Your task to perform on an android device: set the stopwatch Image 0: 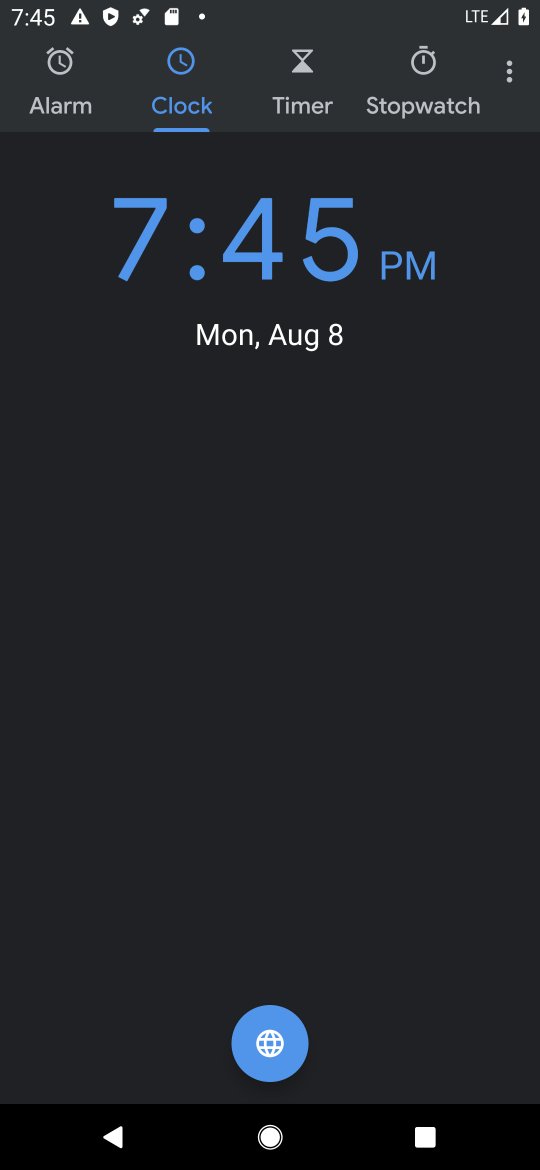
Step 0: drag from (250, 983) to (369, 473)
Your task to perform on an android device: set the stopwatch Image 1: 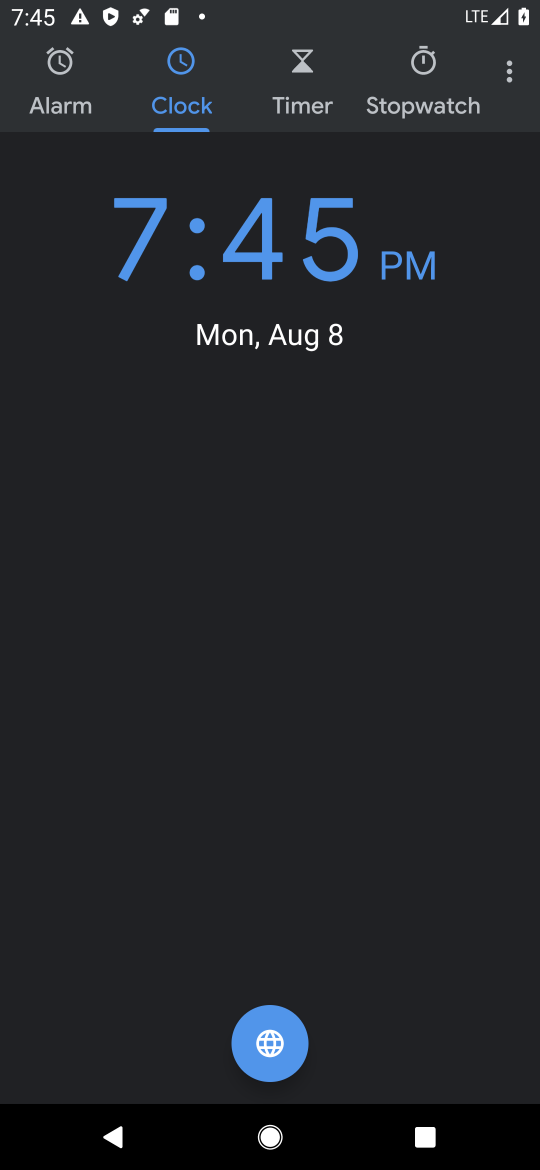
Step 1: click (428, 93)
Your task to perform on an android device: set the stopwatch Image 2: 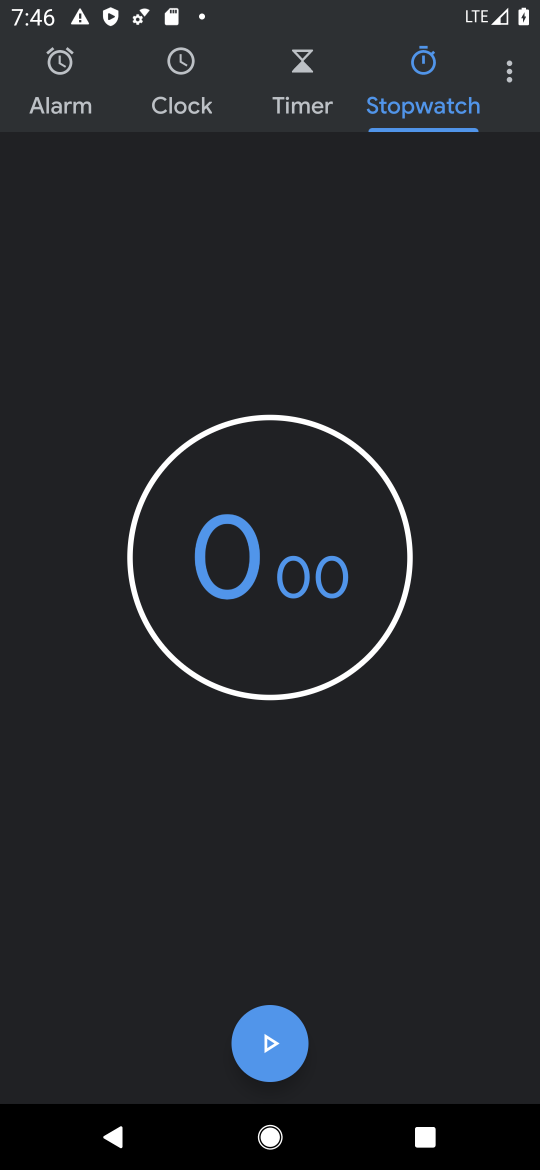
Step 2: click (424, 413)
Your task to perform on an android device: set the stopwatch Image 3: 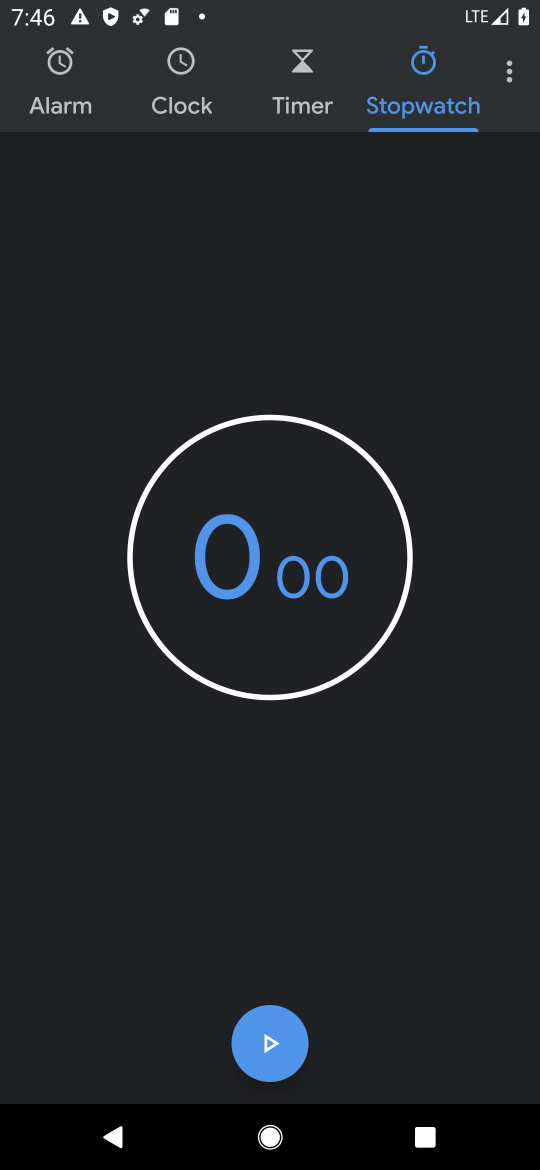
Step 3: click (252, 1074)
Your task to perform on an android device: set the stopwatch Image 4: 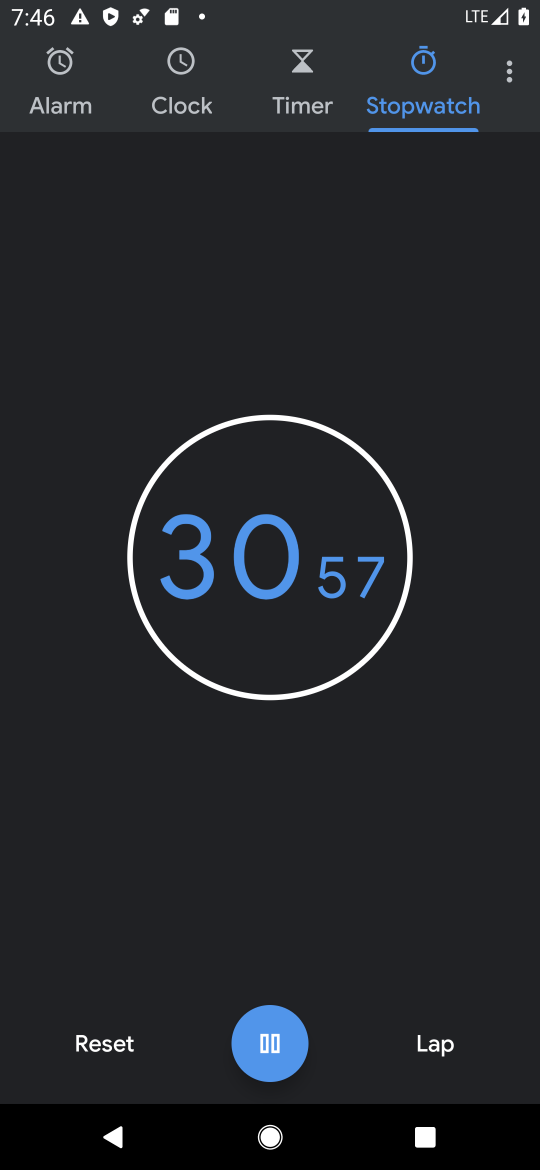
Step 4: task complete